Your task to perform on an android device: delete the emails in spam in the gmail app Image 0: 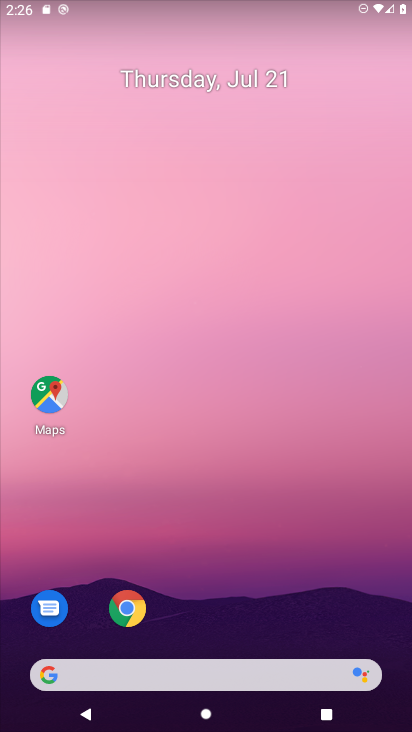
Step 0: drag from (163, 608) to (167, 227)
Your task to perform on an android device: delete the emails in spam in the gmail app Image 1: 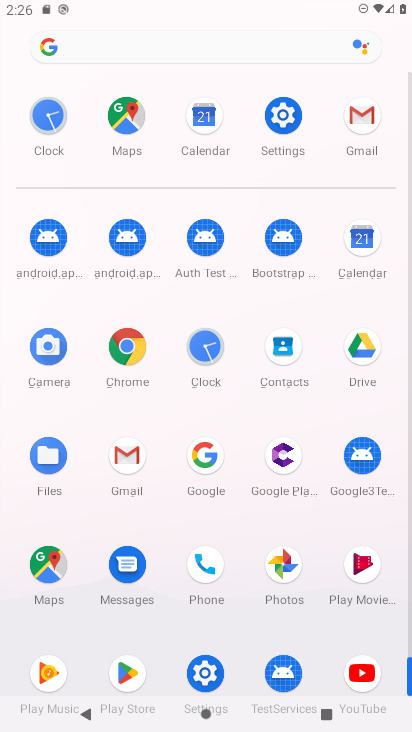
Step 1: click (363, 126)
Your task to perform on an android device: delete the emails in spam in the gmail app Image 2: 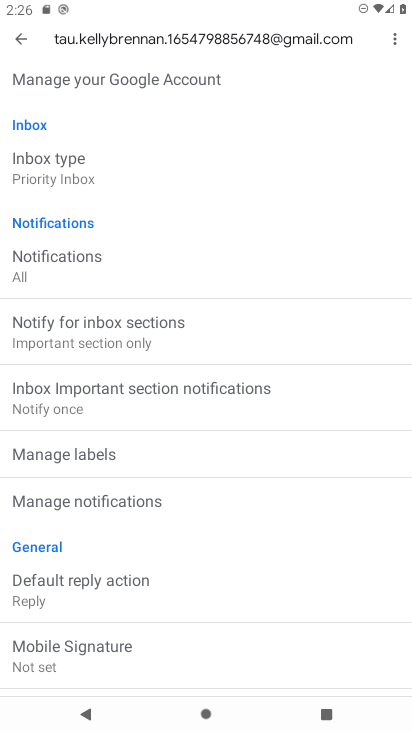
Step 2: click (11, 42)
Your task to perform on an android device: delete the emails in spam in the gmail app Image 3: 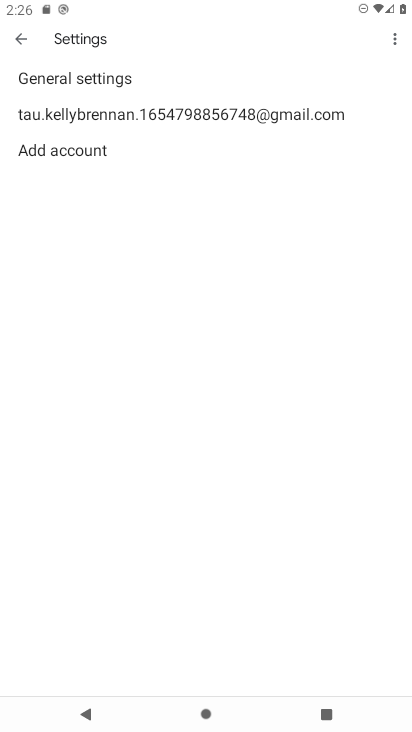
Step 3: click (23, 40)
Your task to perform on an android device: delete the emails in spam in the gmail app Image 4: 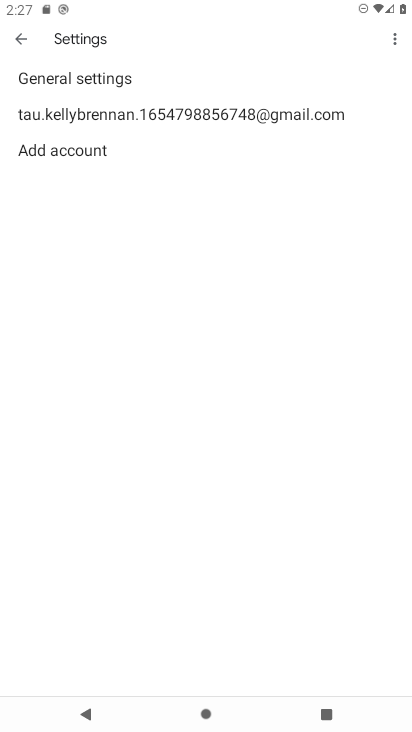
Step 4: click (23, 40)
Your task to perform on an android device: delete the emails in spam in the gmail app Image 5: 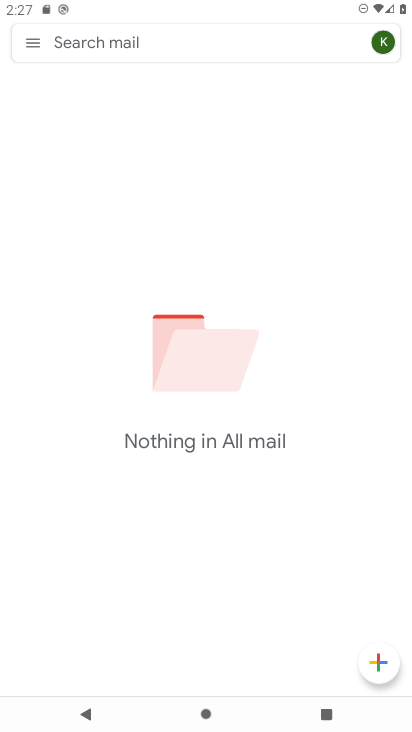
Step 5: click (23, 40)
Your task to perform on an android device: delete the emails in spam in the gmail app Image 6: 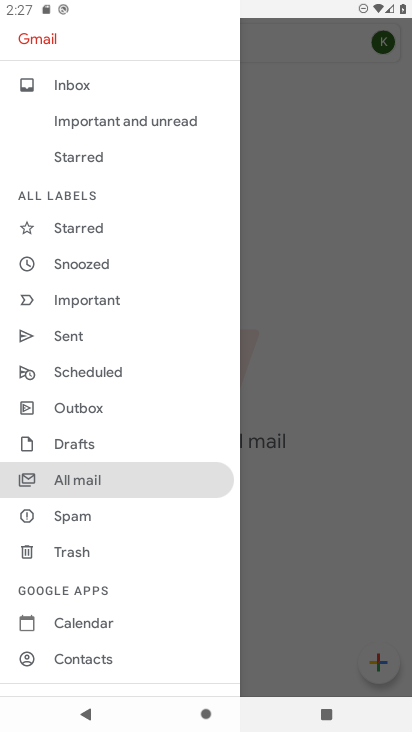
Step 6: click (84, 517)
Your task to perform on an android device: delete the emails in spam in the gmail app Image 7: 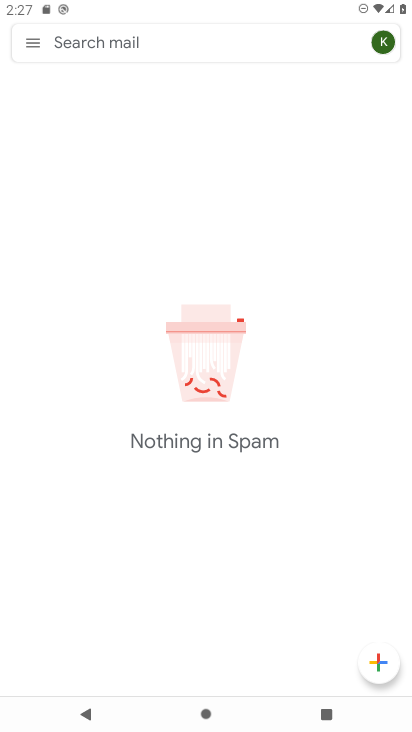
Step 7: task complete